Your task to perform on an android device: open chrome privacy settings Image 0: 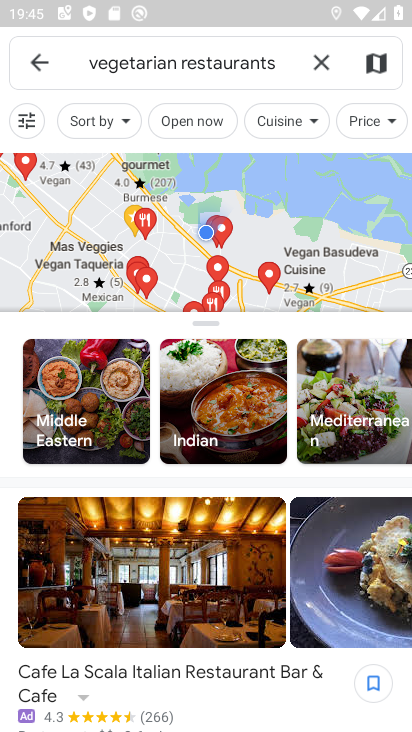
Step 0: press home button
Your task to perform on an android device: open chrome privacy settings Image 1: 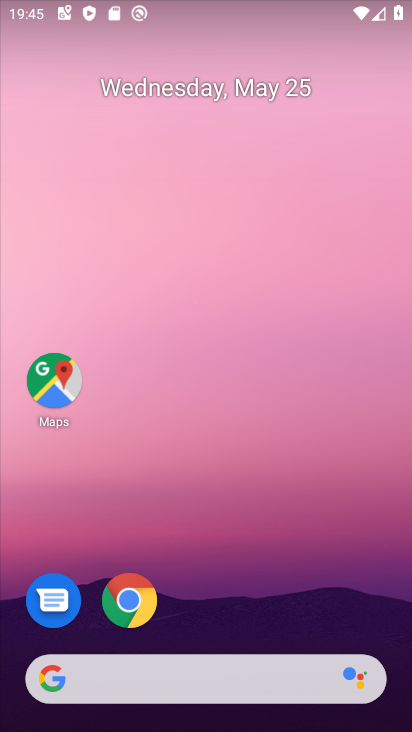
Step 1: drag from (323, 508) to (395, 125)
Your task to perform on an android device: open chrome privacy settings Image 2: 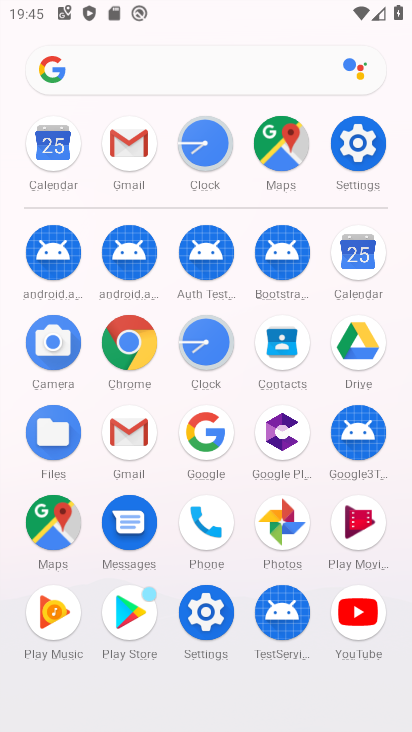
Step 2: click (134, 364)
Your task to perform on an android device: open chrome privacy settings Image 3: 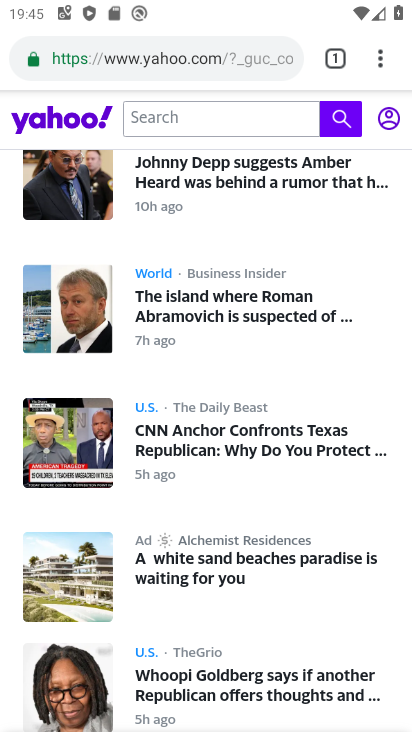
Step 3: drag from (376, 70) to (192, 641)
Your task to perform on an android device: open chrome privacy settings Image 4: 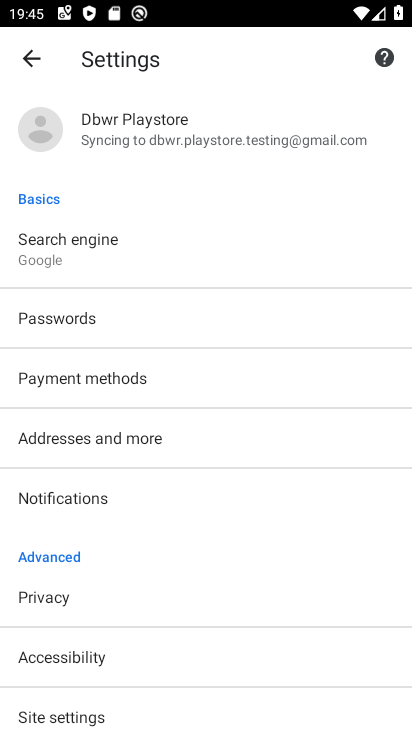
Step 4: click (151, 614)
Your task to perform on an android device: open chrome privacy settings Image 5: 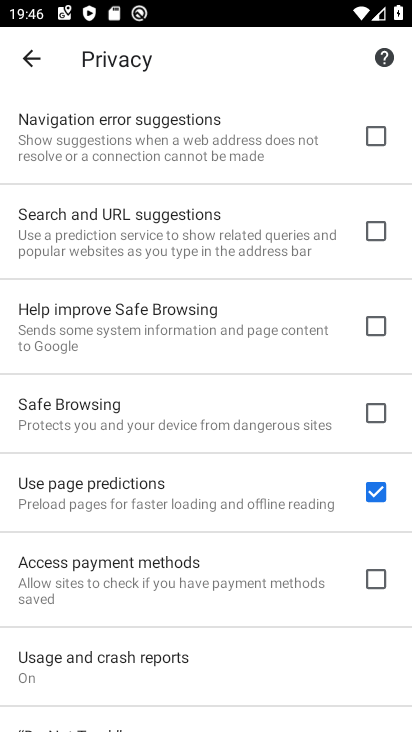
Step 5: task complete